Your task to perform on an android device: empty trash in google photos Image 0: 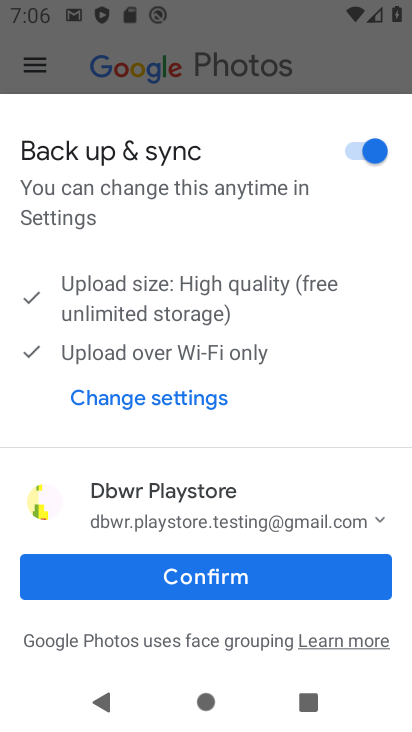
Step 0: press home button
Your task to perform on an android device: empty trash in google photos Image 1: 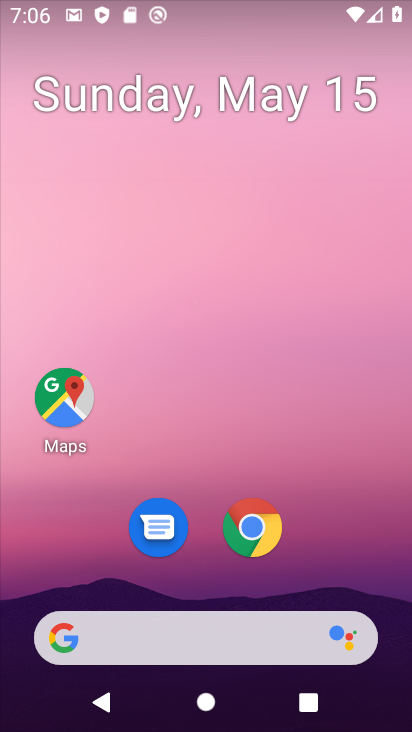
Step 1: drag from (340, 534) to (392, 21)
Your task to perform on an android device: empty trash in google photos Image 2: 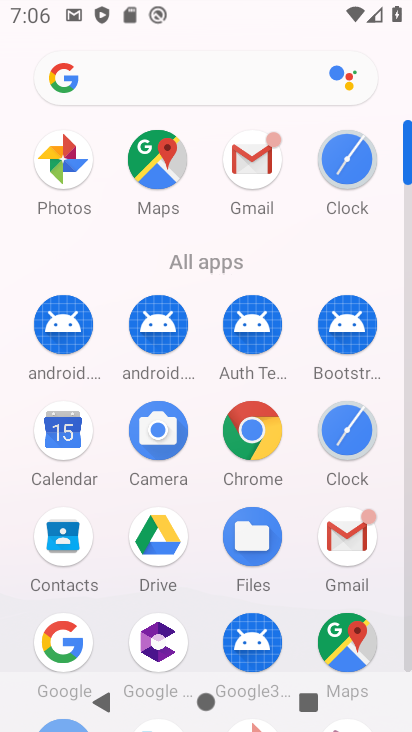
Step 2: click (85, 172)
Your task to perform on an android device: empty trash in google photos Image 3: 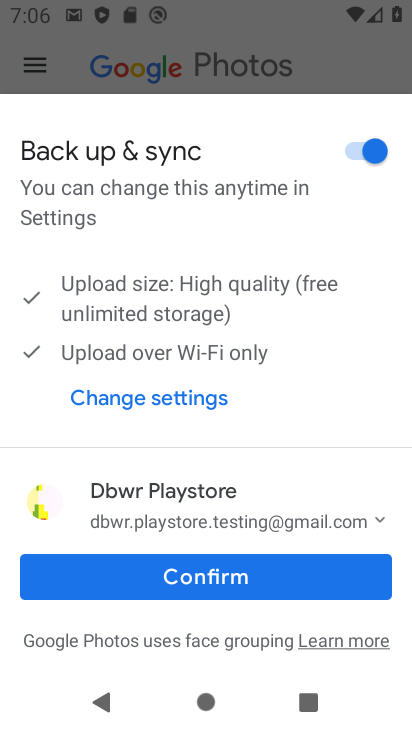
Step 3: click (229, 581)
Your task to perform on an android device: empty trash in google photos Image 4: 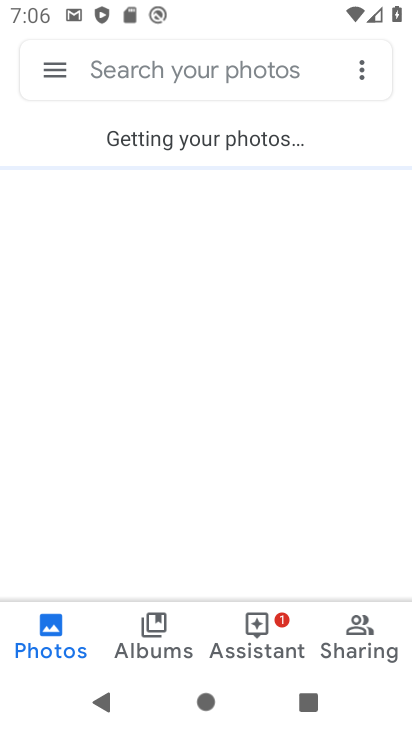
Step 4: click (49, 79)
Your task to perform on an android device: empty trash in google photos Image 5: 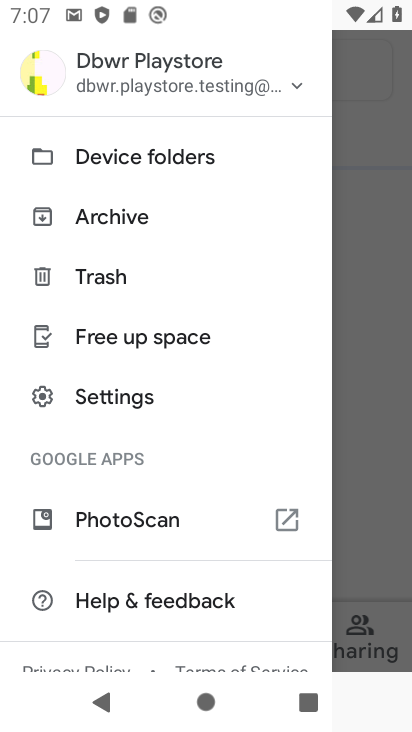
Step 5: click (110, 271)
Your task to perform on an android device: empty trash in google photos Image 6: 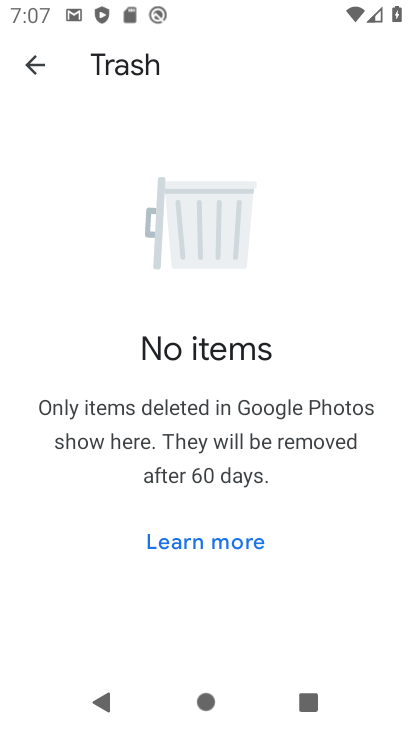
Step 6: task complete